Your task to perform on an android device: turn on the 24-hour format for clock Image 0: 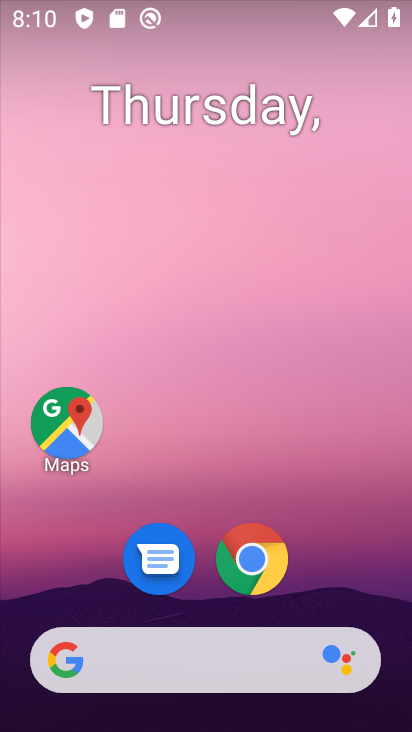
Step 0: drag from (224, 662) to (252, 63)
Your task to perform on an android device: turn on the 24-hour format for clock Image 1: 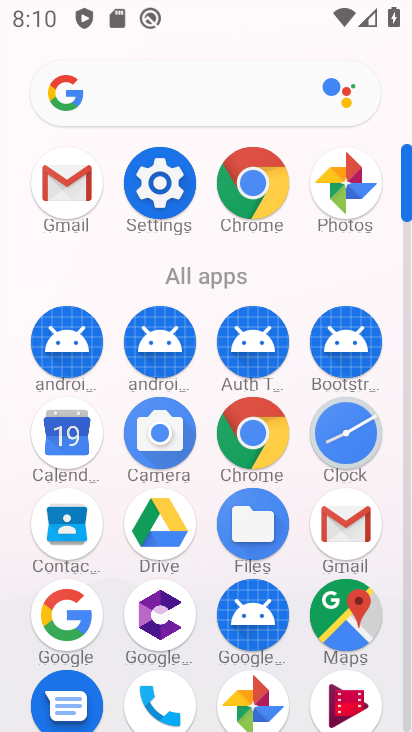
Step 1: click (144, 173)
Your task to perform on an android device: turn on the 24-hour format for clock Image 2: 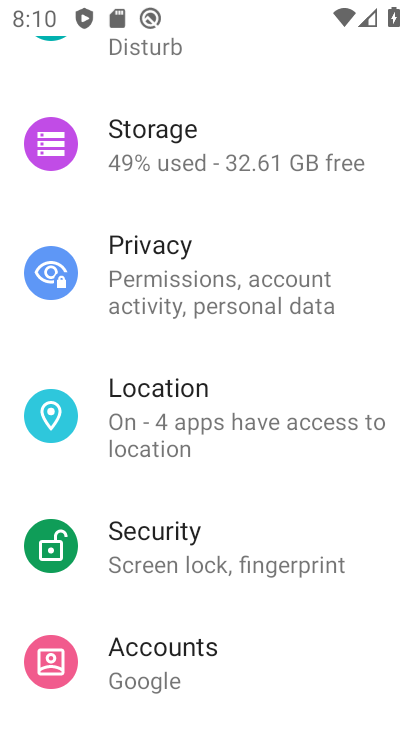
Step 2: drag from (281, 705) to (210, 51)
Your task to perform on an android device: turn on the 24-hour format for clock Image 3: 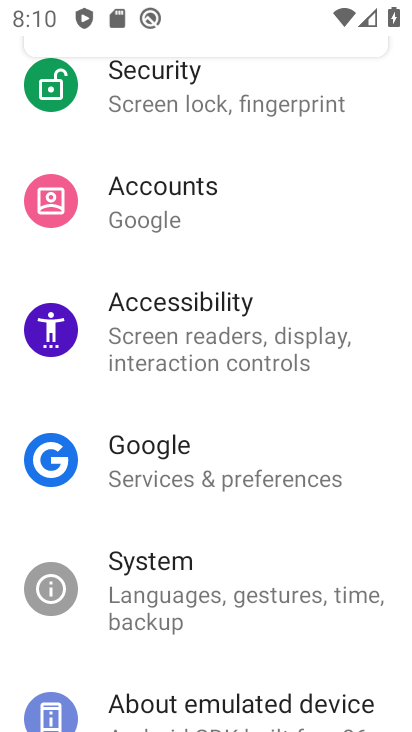
Step 3: click (197, 604)
Your task to perform on an android device: turn on the 24-hour format for clock Image 4: 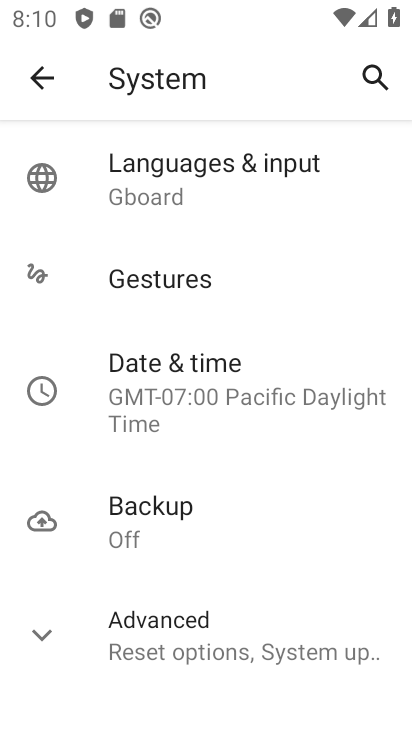
Step 4: click (214, 400)
Your task to perform on an android device: turn on the 24-hour format for clock Image 5: 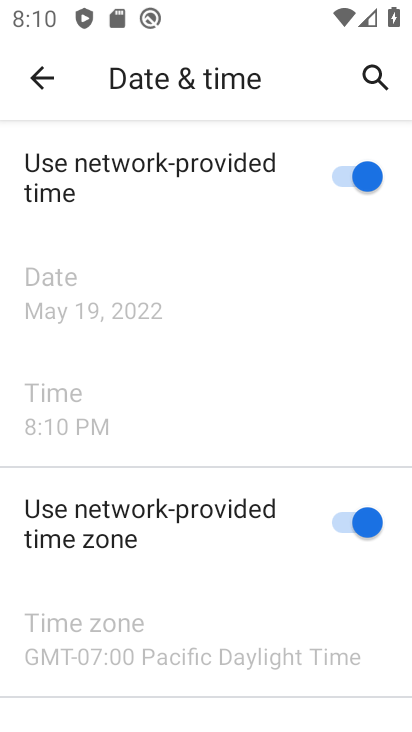
Step 5: drag from (292, 595) to (264, 155)
Your task to perform on an android device: turn on the 24-hour format for clock Image 6: 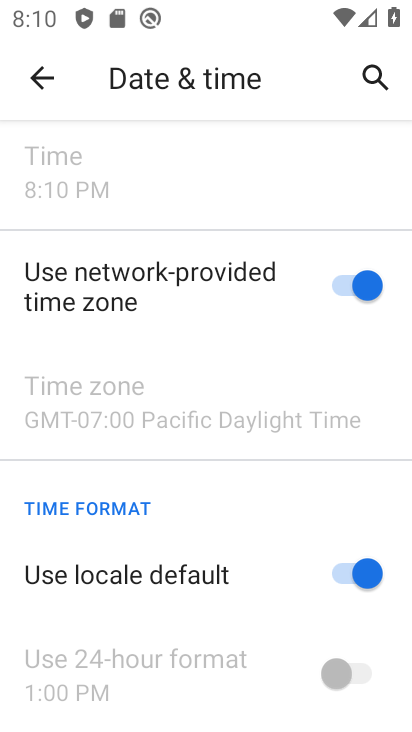
Step 6: click (375, 585)
Your task to perform on an android device: turn on the 24-hour format for clock Image 7: 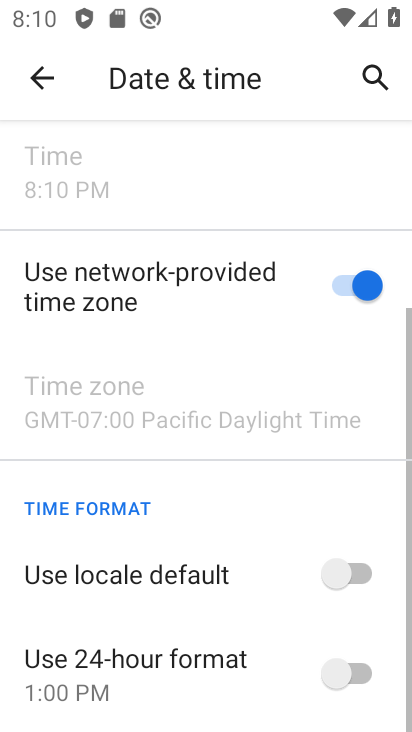
Step 7: click (356, 676)
Your task to perform on an android device: turn on the 24-hour format for clock Image 8: 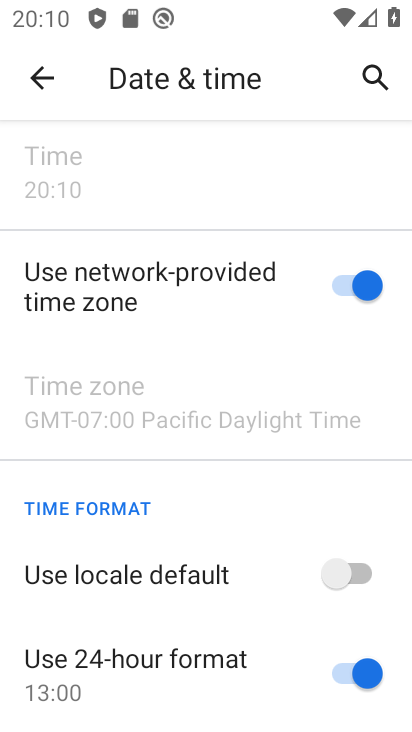
Step 8: task complete